Your task to perform on an android device: open chrome and create a bookmark for the current page Image 0: 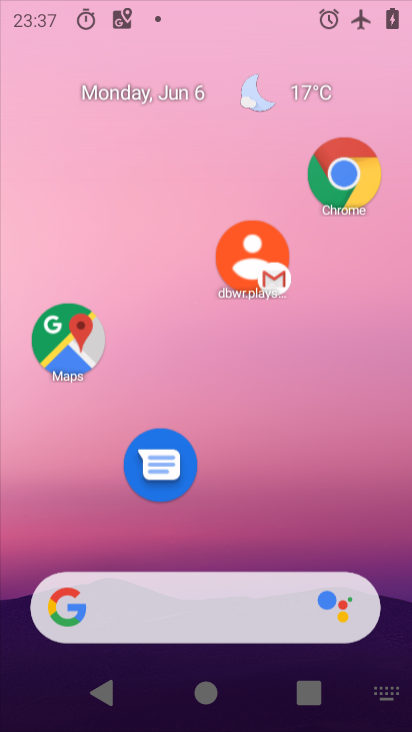
Step 0: click (272, 152)
Your task to perform on an android device: open chrome and create a bookmark for the current page Image 1: 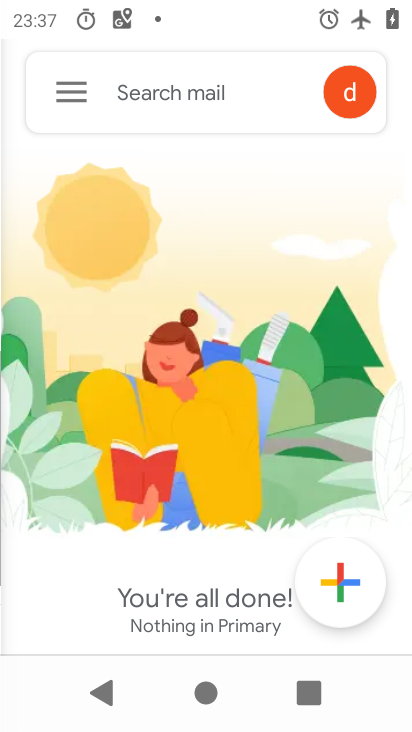
Step 1: drag from (248, 537) to (231, 181)
Your task to perform on an android device: open chrome and create a bookmark for the current page Image 2: 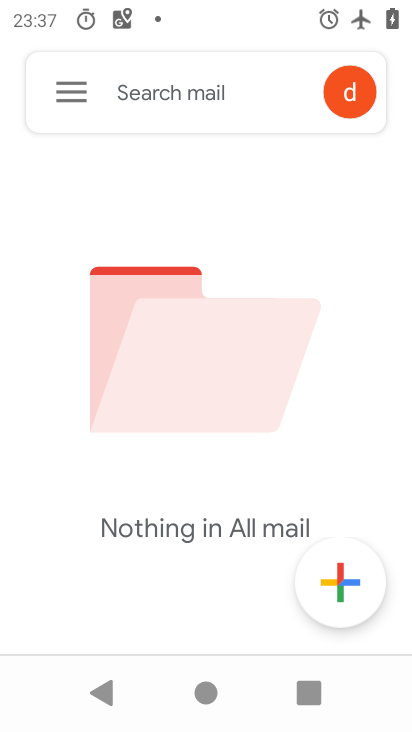
Step 2: press home button
Your task to perform on an android device: open chrome and create a bookmark for the current page Image 3: 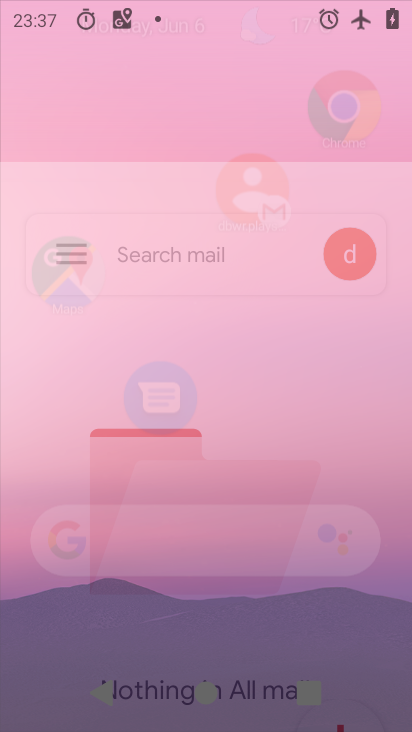
Step 3: drag from (200, 597) to (257, 178)
Your task to perform on an android device: open chrome and create a bookmark for the current page Image 4: 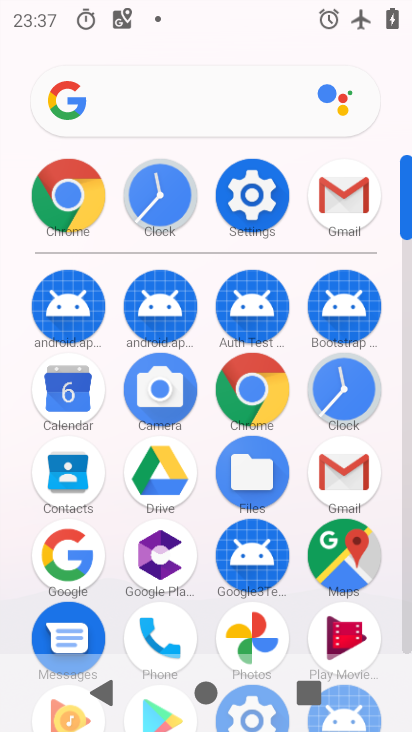
Step 4: click (245, 388)
Your task to perform on an android device: open chrome and create a bookmark for the current page Image 5: 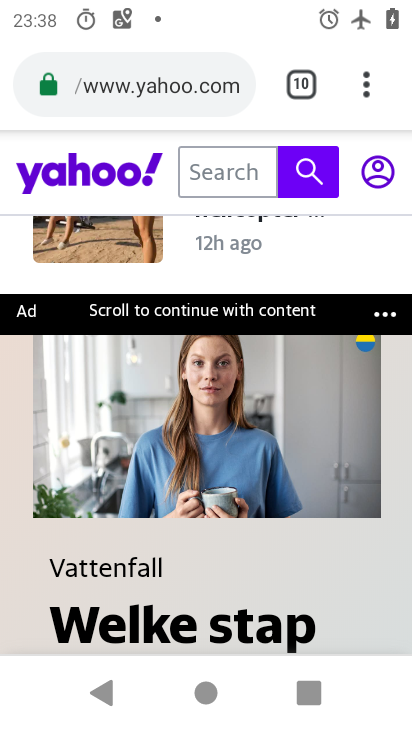
Step 5: task complete